Your task to perform on an android device: Open network settings Image 0: 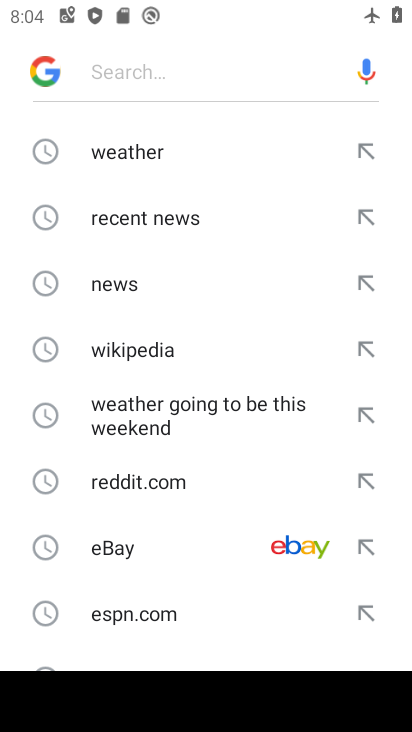
Step 0: press home button
Your task to perform on an android device: Open network settings Image 1: 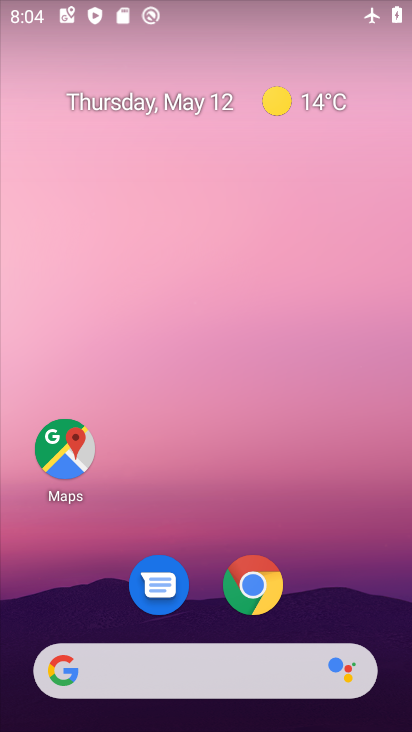
Step 1: drag from (193, 489) to (249, 63)
Your task to perform on an android device: Open network settings Image 2: 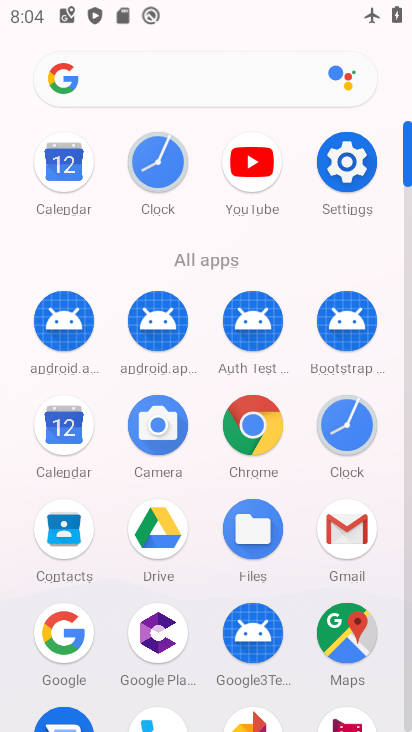
Step 2: click (354, 167)
Your task to perform on an android device: Open network settings Image 3: 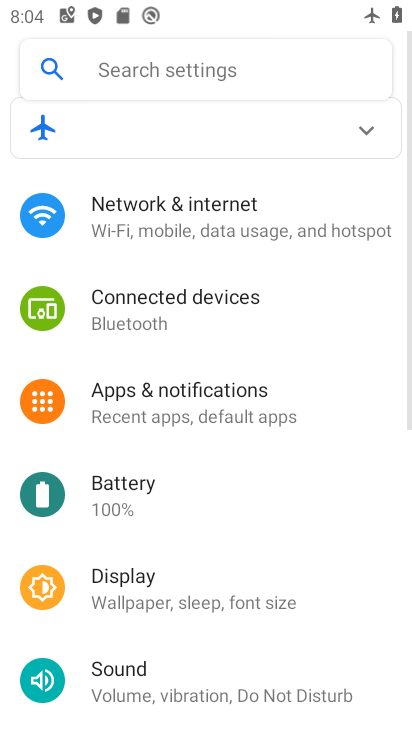
Step 3: click (314, 223)
Your task to perform on an android device: Open network settings Image 4: 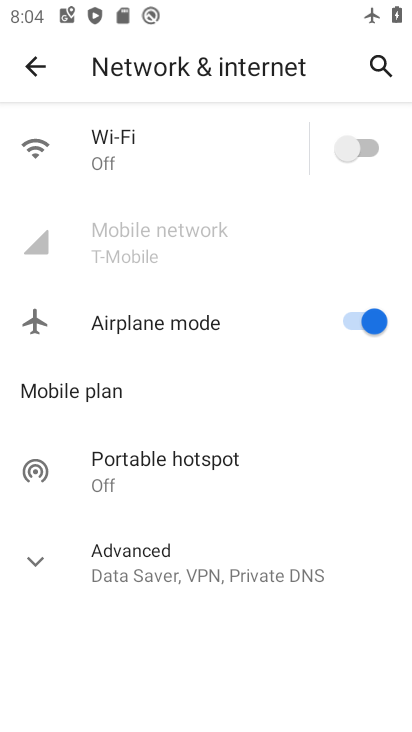
Step 4: task complete